Your task to perform on an android device: turn off translation in the chrome app Image 0: 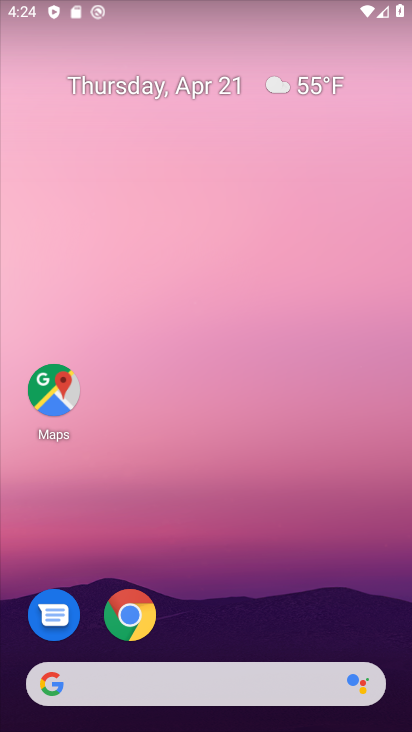
Step 0: drag from (389, 609) to (331, 28)
Your task to perform on an android device: turn off translation in the chrome app Image 1: 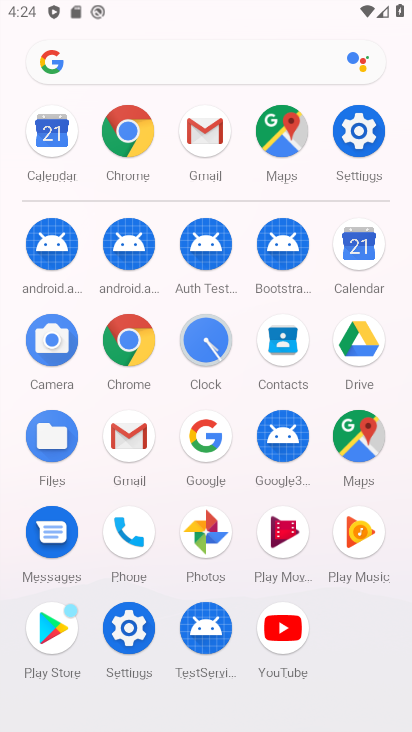
Step 1: drag from (14, 632) to (14, 515)
Your task to perform on an android device: turn off translation in the chrome app Image 2: 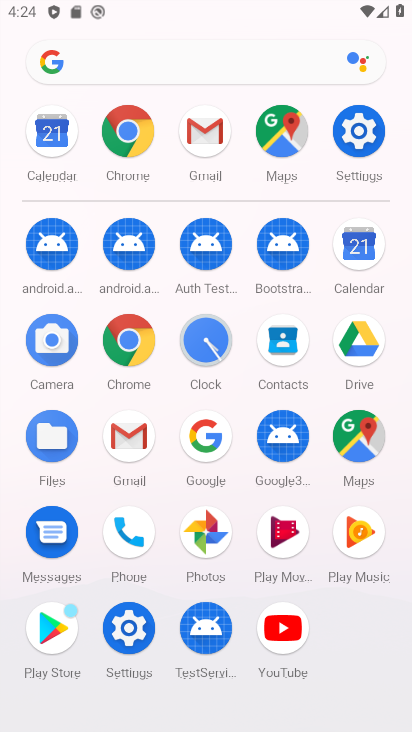
Step 2: click (123, 130)
Your task to perform on an android device: turn off translation in the chrome app Image 3: 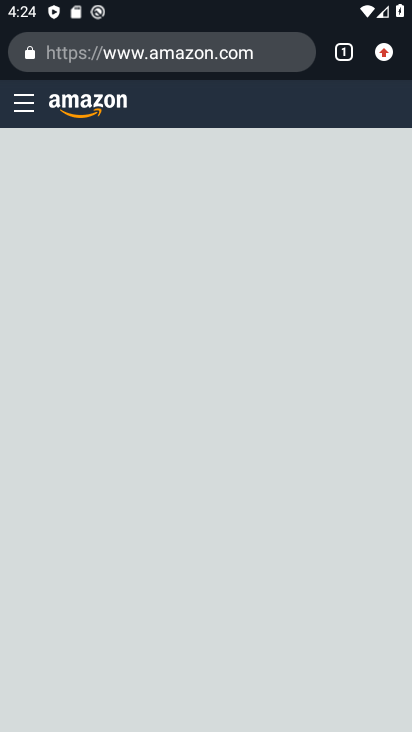
Step 3: click (197, 51)
Your task to perform on an android device: turn off translation in the chrome app Image 4: 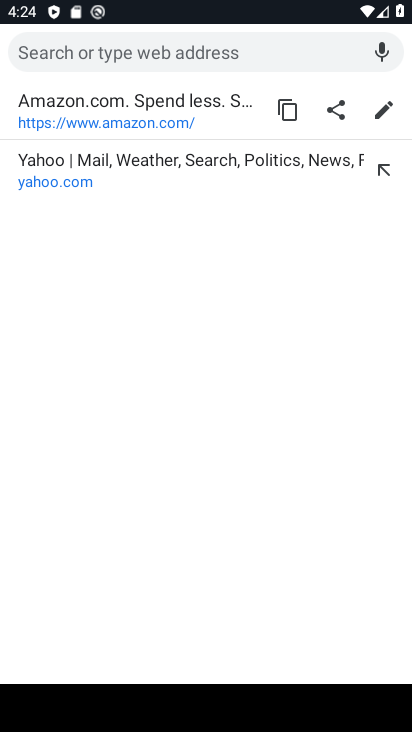
Step 4: press back button
Your task to perform on an android device: turn off translation in the chrome app Image 5: 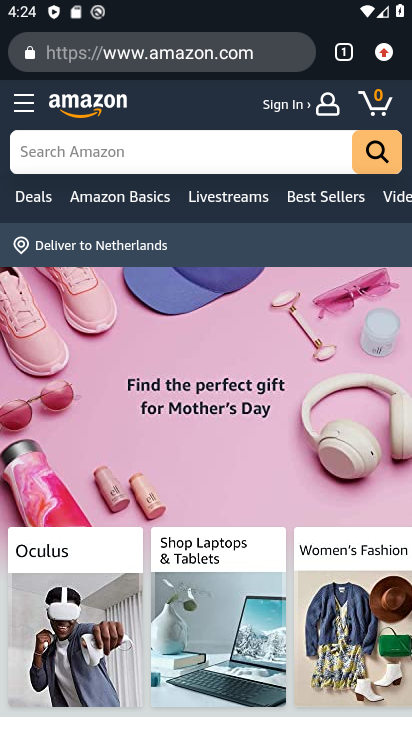
Step 5: drag from (387, 54) to (238, 656)
Your task to perform on an android device: turn off translation in the chrome app Image 6: 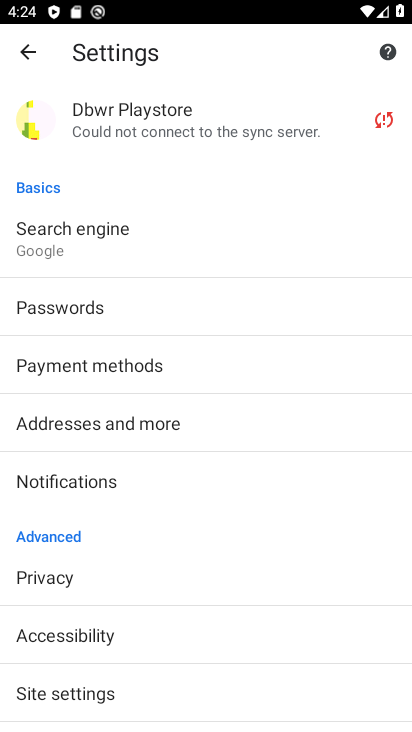
Step 6: drag from (252, 461) to (250, 177)
Your task to perform on an android device: turn off translation in the chrome app Image 7: 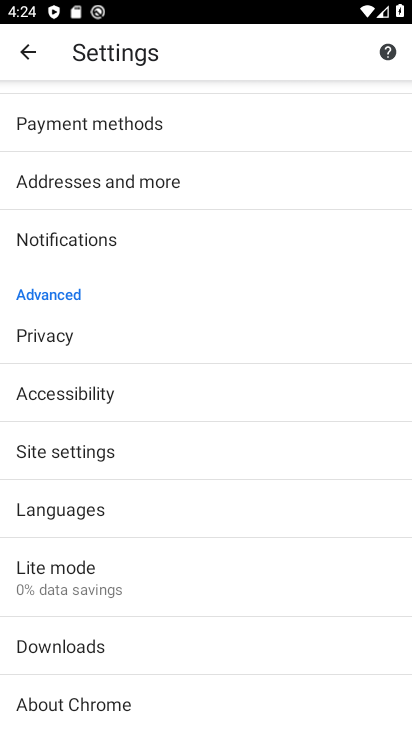
Step 7: drag from (241, 585) to (271, 182)
Your task to perform on an android device: turn off translation in the chrome app Image 8: 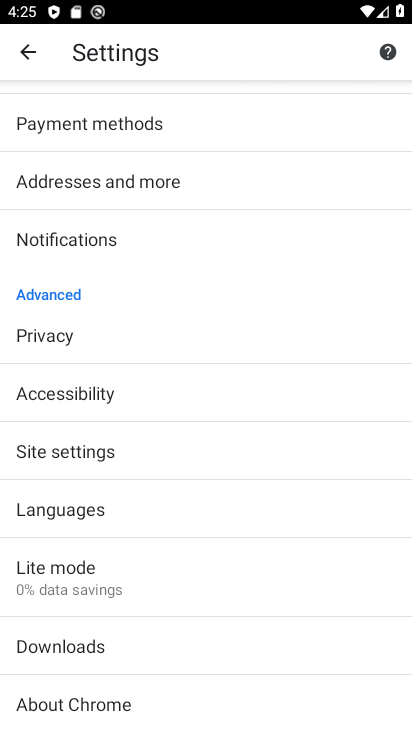
Step 8: click (125, 456)
Your task to perform on an android device: turn off translation in the chrome app Image 9: 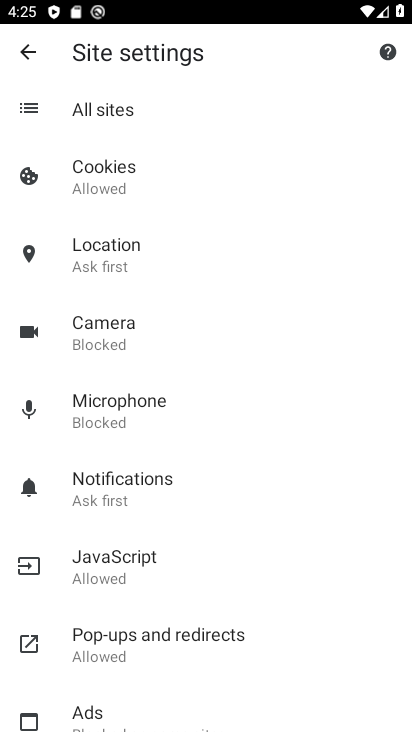
Step 9: drag from (221, 551) to (258, 75)
Your task to perform on an android device: turn off translation in the chrome app Image 10: 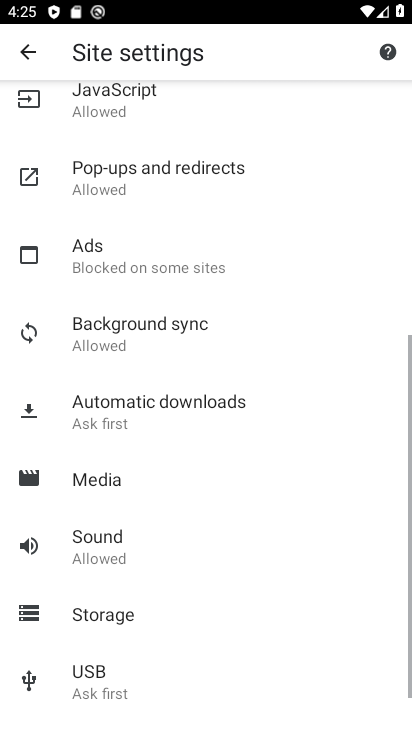
Step 10: drag from (184, 470) to (227, 136)
Your task to perform on an android device: turn off translation in the chrome app Image 11: 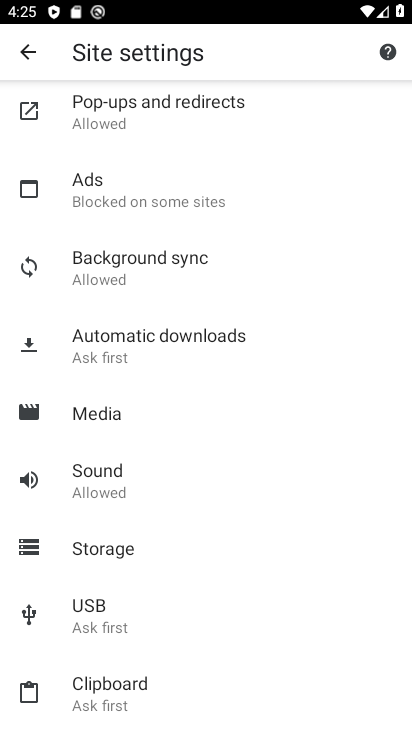
Step 11: drag from (231, 225) to (236, 549)
Your task to perform on an android device: turn off translation in the chrome app Image 12: 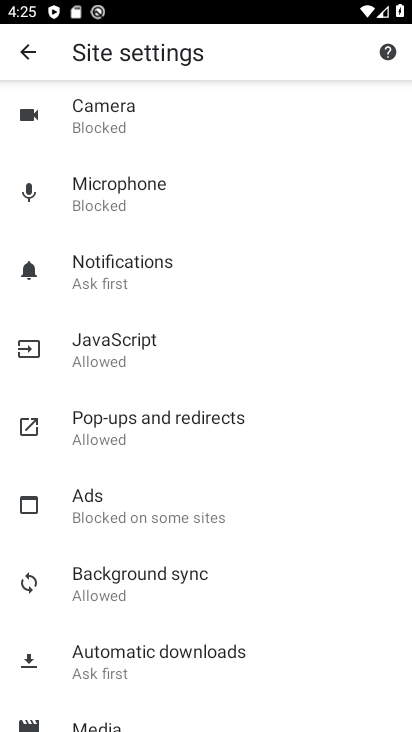
Step 12: drag from (228, 233) to (238, 543)
Your task to perform on an android device: turn off translation in the chrome app Image 13: 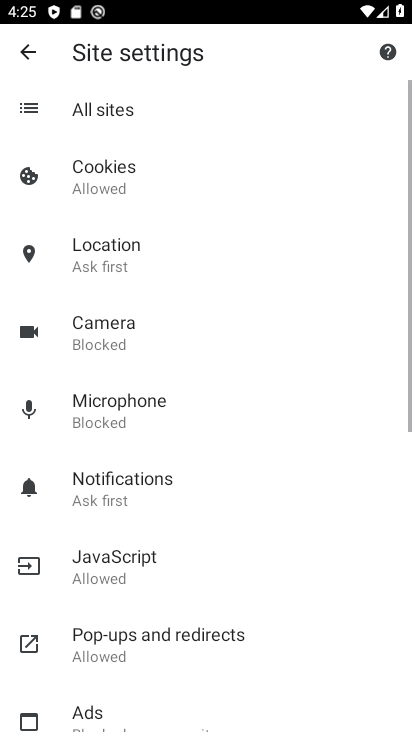
Step 13: drag from (215, 182) to (217, 570)
Your task to perform on an android device: turn off translation in the chrome app Image 14: 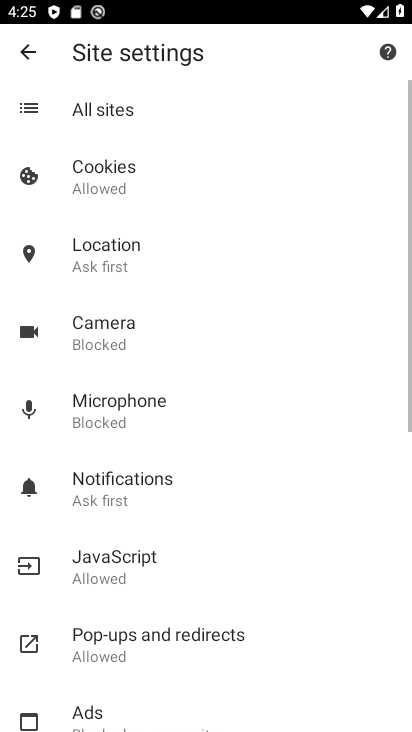
Step 14: drag from (214, 507) to (240, 183)
Your task to perform on an android device: turn off translation in the chrome app Image 15: 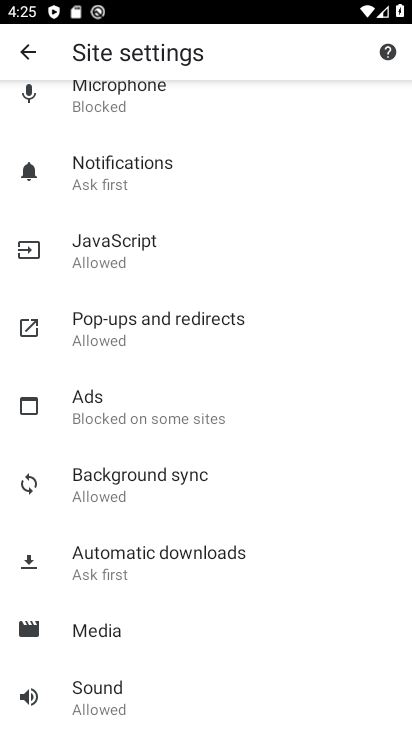
Step 15: drag from (214, 530) to (242, 190)
Your task to perform on an android device: turn off translation in the chrome app Image 16: 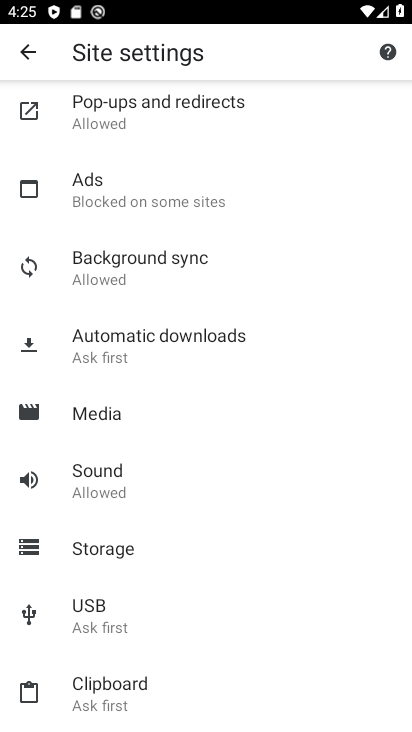
Step 16: drag from (199, 508) to (220, 205)
Your task to perform on an android device: turn off translation in the chrome app Image 17: 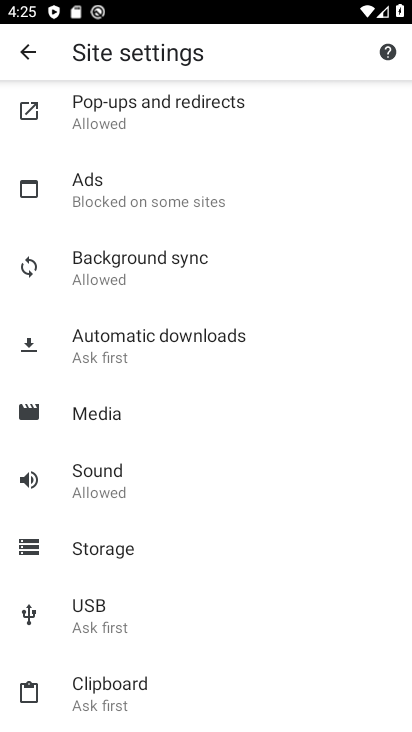
Step 17: click (24, 48)
Your task to perform on an android device: turn off translation in the chrome app Image 18: 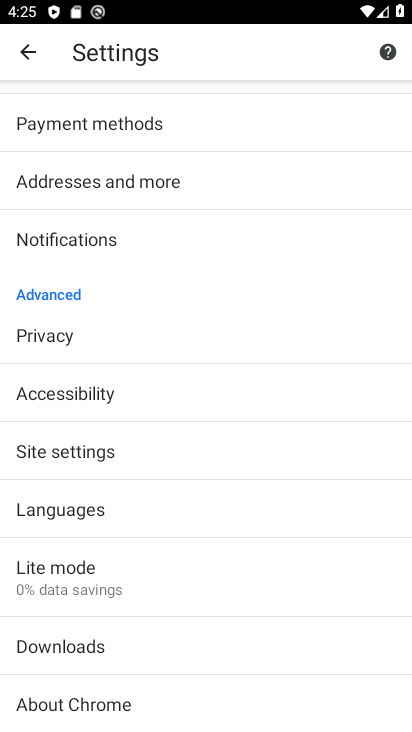
Step 18: drag from (252, 569) to (248, 241)
Your task to perform on an android device: turn off translation in the chrome app Image 19: 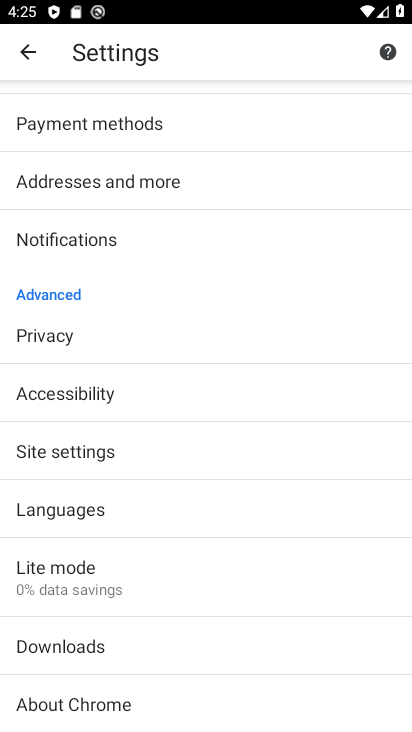
Step 19: drag from (226, 344) to (228, 530)
Your task to perform on an android device: turn off translation in the chrome app Image 20: 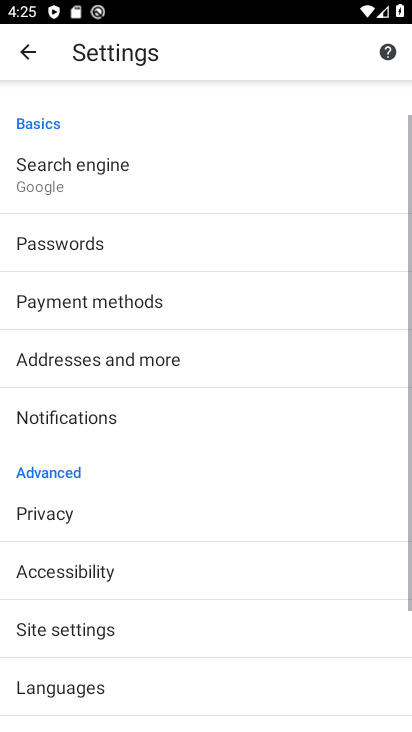
Step 20: drag from (234, 162) to (226, 489)
Your task to perform on an android device: turn off translation in the chrome app Image 21: 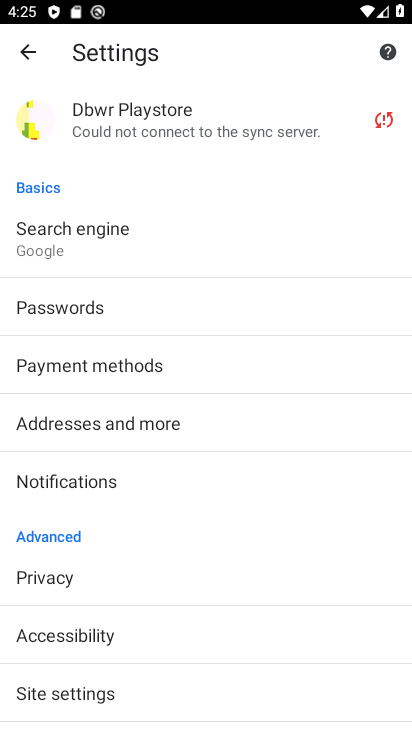
Step 21: click (18, 51)
Your task to perform on an android device: turn off translation in the chrome app Image 22: 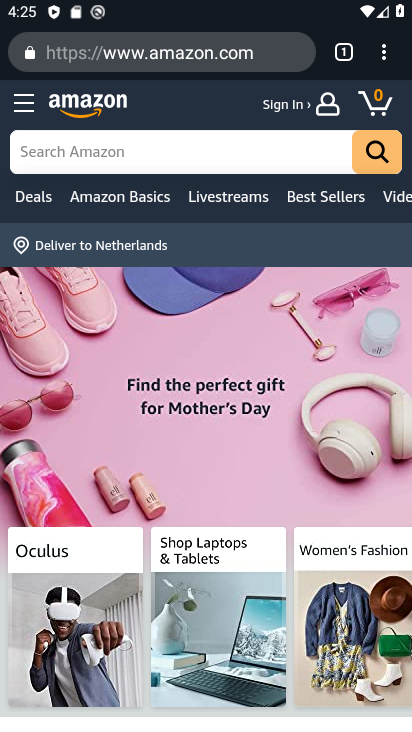
Step 22: drag from (379, 49) to (221, 661)
Your task to perform on an android device: turn off translation in the chrome app Image 23: 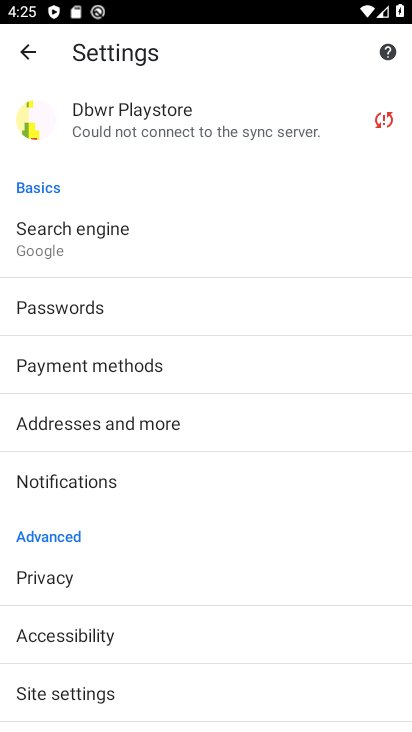
Step 23: drag from (177, 664) to (197, 399)
Your task to perform on an android device: turn off translation in the chrome app Image 24: 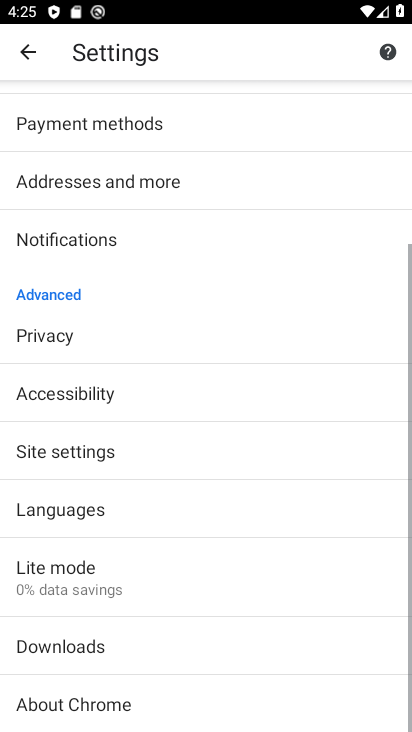
Step 24: click (103, 506)
Your task to perform on an android device: turn off translation in the chrome app Image 25: 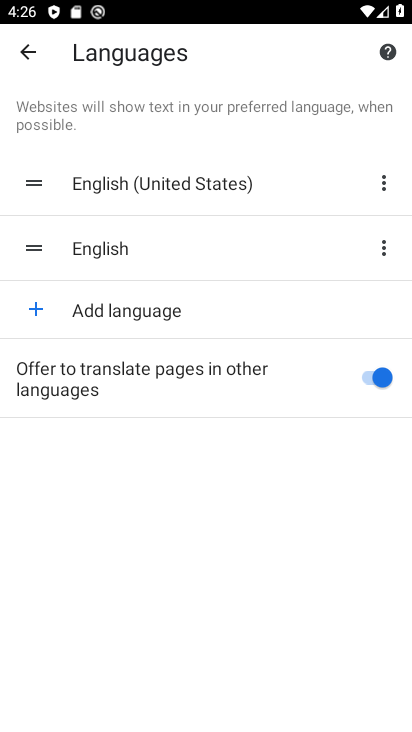
Step 25: click (361, 379)
Your task to perform on an android device: turn off translation in the chrome app Image 26: 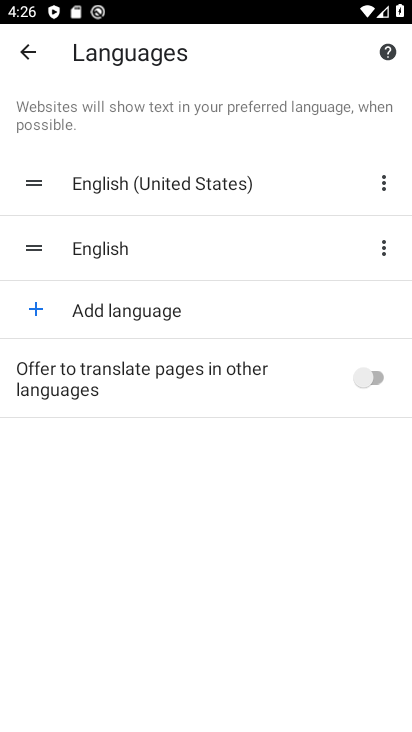
Step 26: task complete